Your task to perform on an android device: Find coffee shops on Maps Image 0: 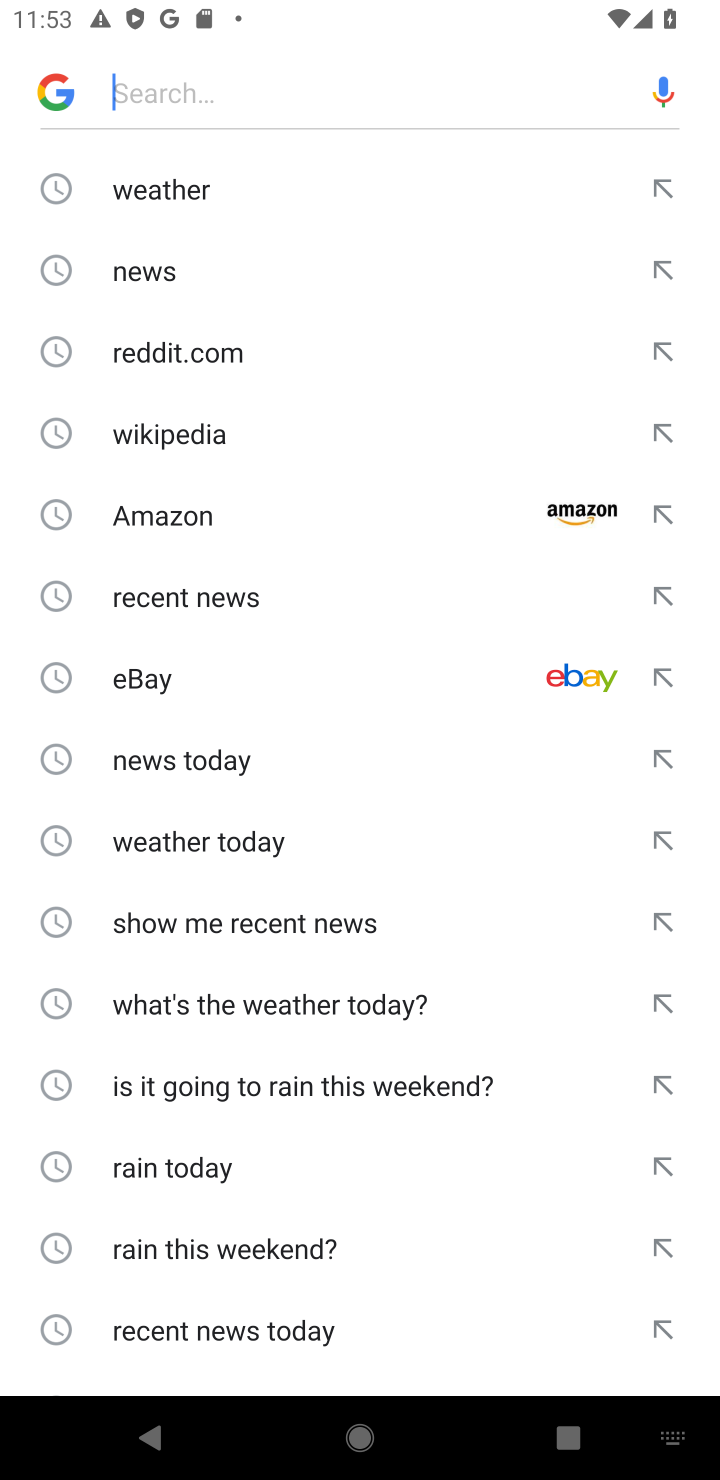
Step 0: press home button
Your task to perform on an android device: Find coffee shops on Maps Image 1: 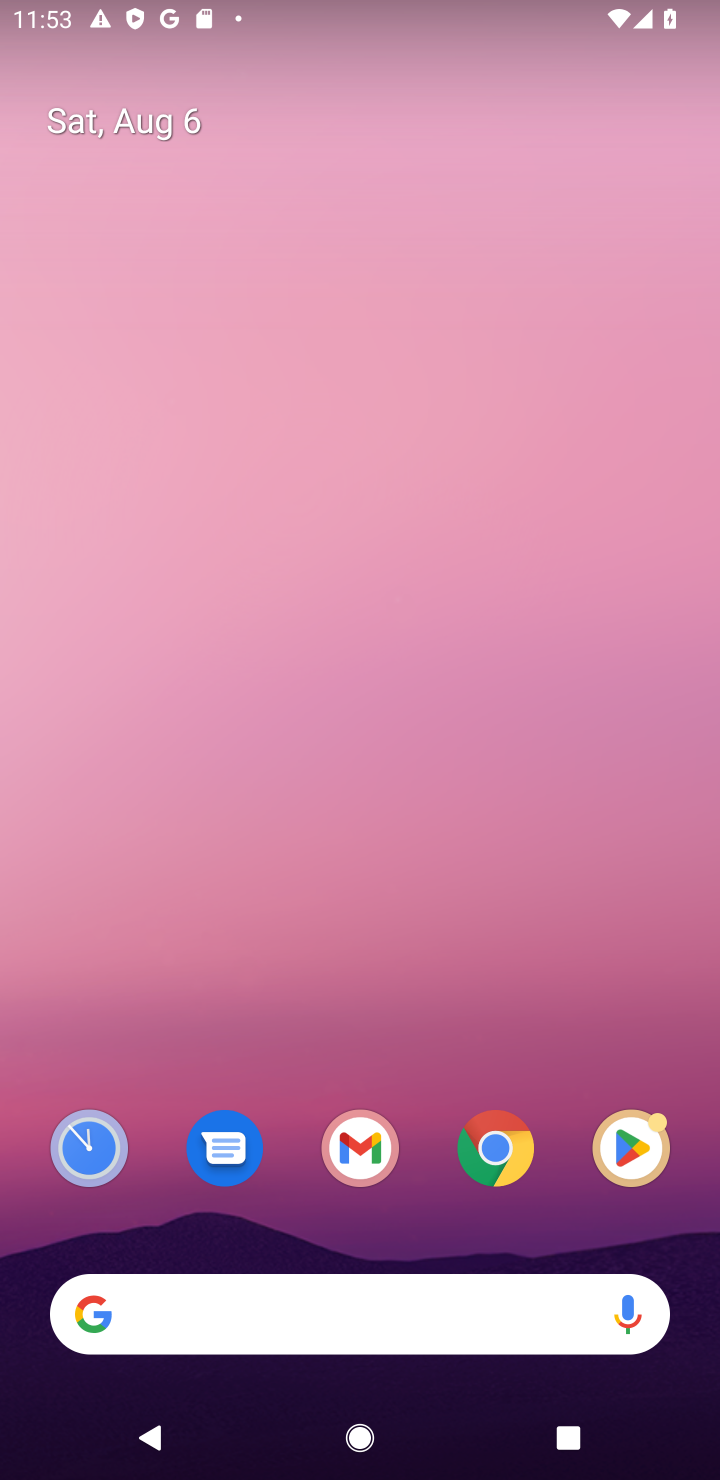
Step 1: drag from (440, 1044) to (438, 118)
Your task to perform on an android device: Find coffee shops on Maps Image 2: 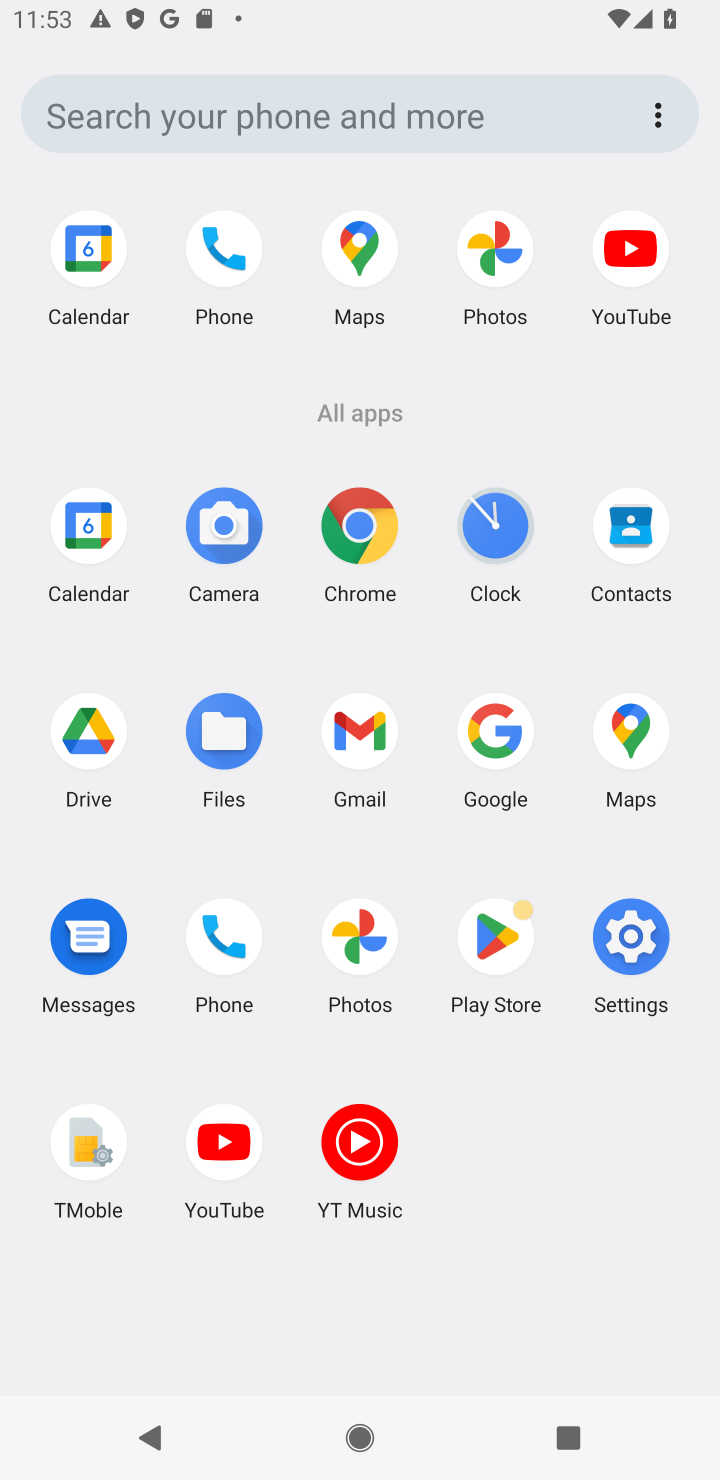
Step 2: click (634, 730)
Your task to perform on an android device: Find coffee shops on Maps Image 3: 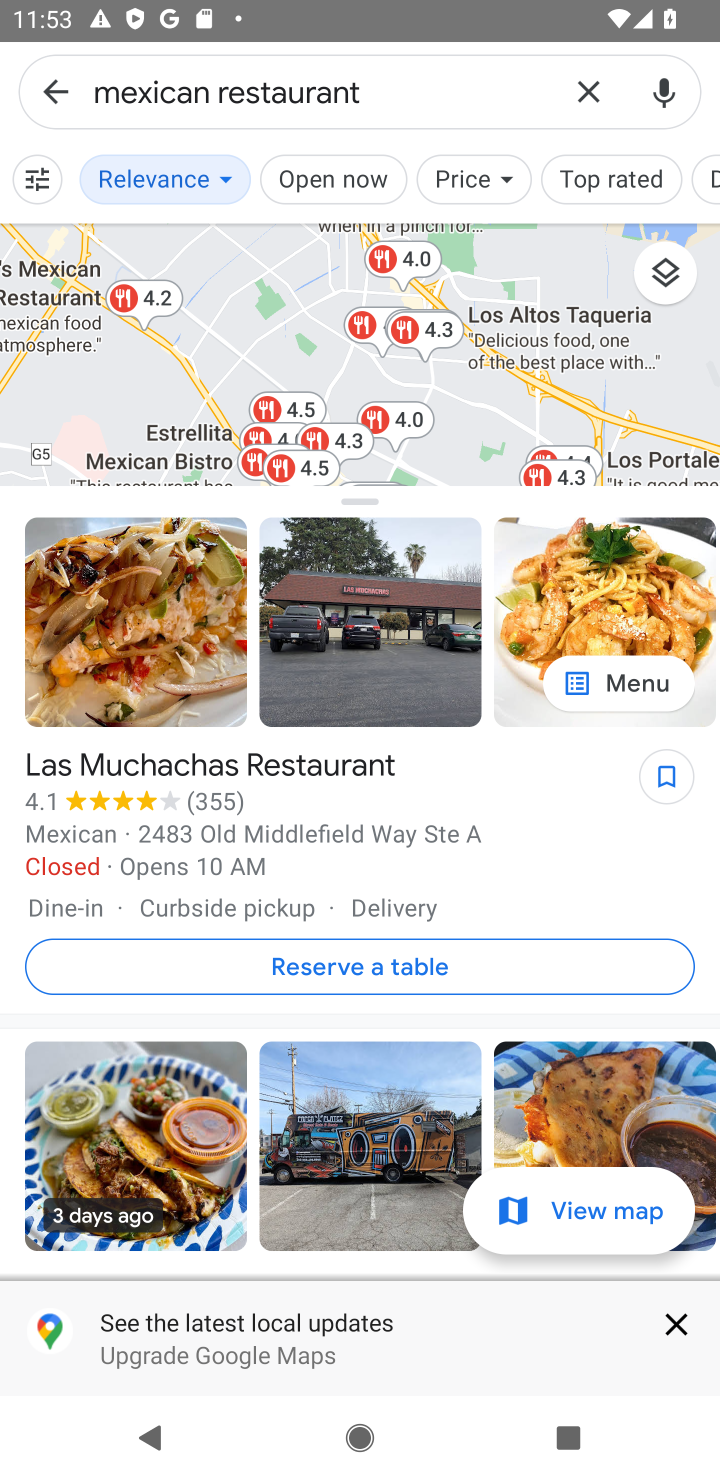
Step 3: click (595, 75)
Your task to perform on an android device: Find coffee shops on Maps Image 4: 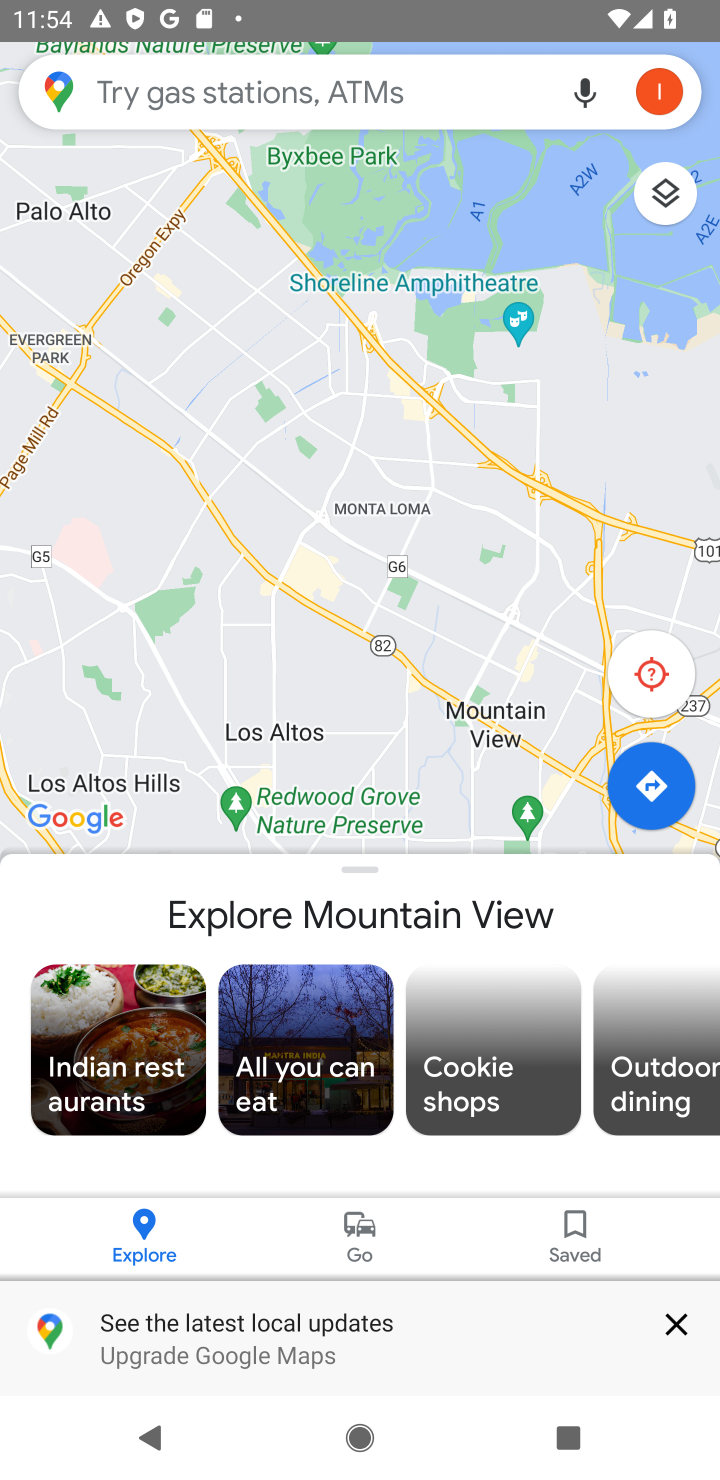
Step 4: click (313, 80)
Your task to perform on an android device: Find coffee shops on Maps Image 5: 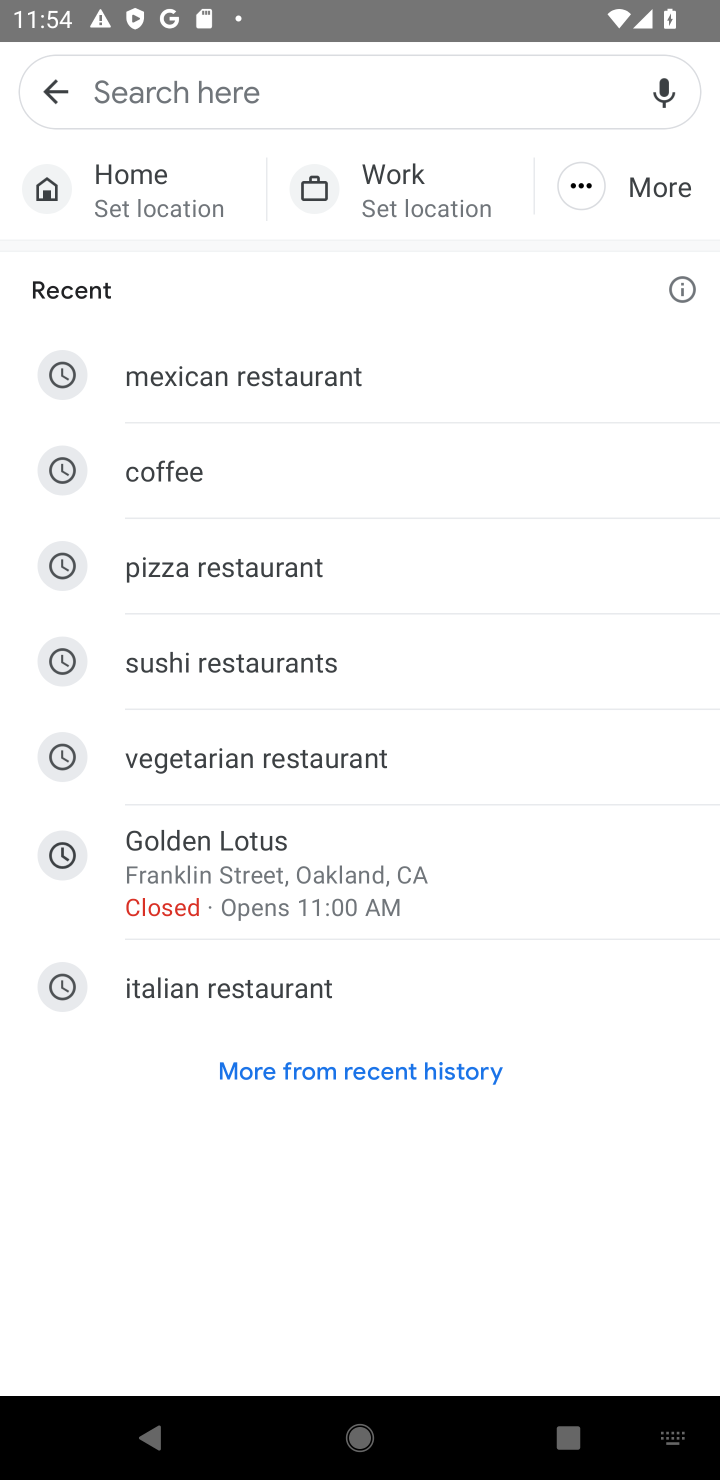
Step 5: click (175, 473)
Your task to perform on an android device: Find coffee shops on Maps Image 6: 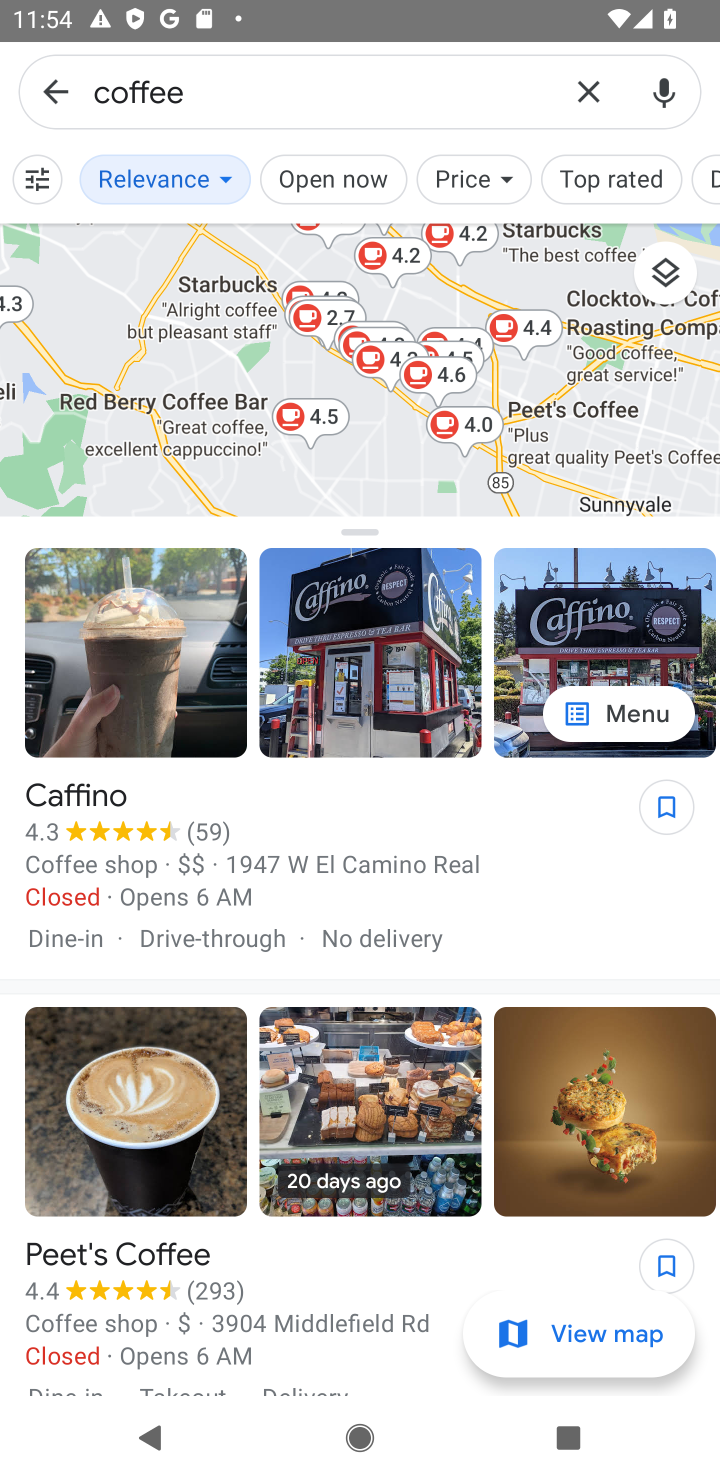
Step 6: task complete